Your task to perform on an android device: Open internet settings Image 0: 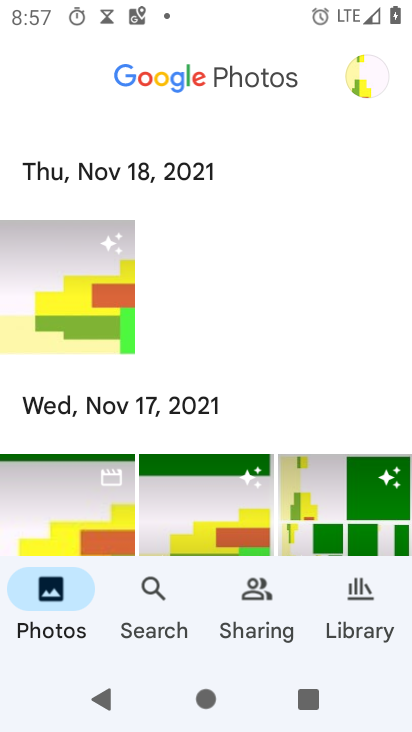
Step 0: press home button
Your task to perform on an android device: Open internet settings Image 1: 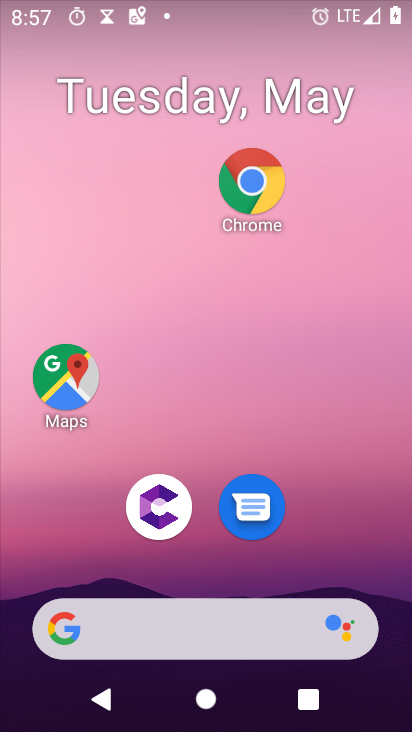
Step 1: drag from (216, 599) to (286, 92)
Your task to perform on an android device: Open internet settings Image 2: 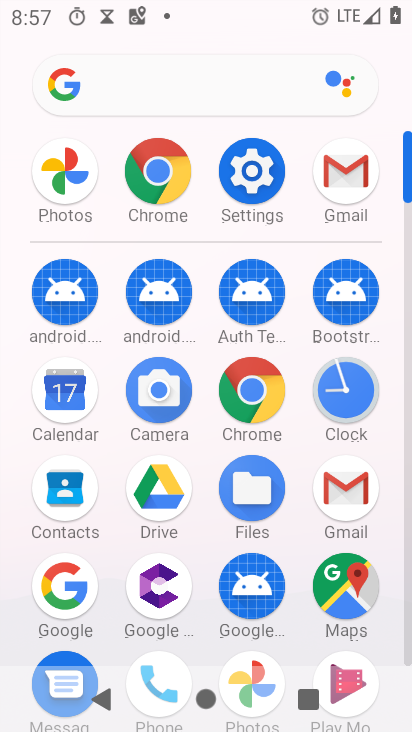
Step 2: click (245, 175)
Your task to perform on an android device: Open internet settings Image 3: 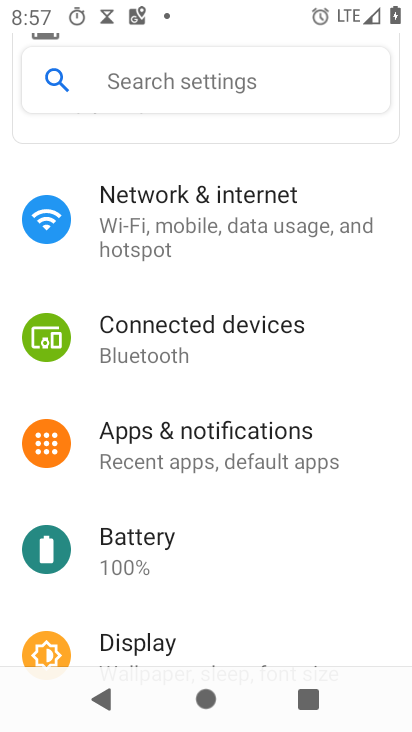
Step 3: click (239, 208)
Your task to perform on an android device: Open internet settings Image 4: 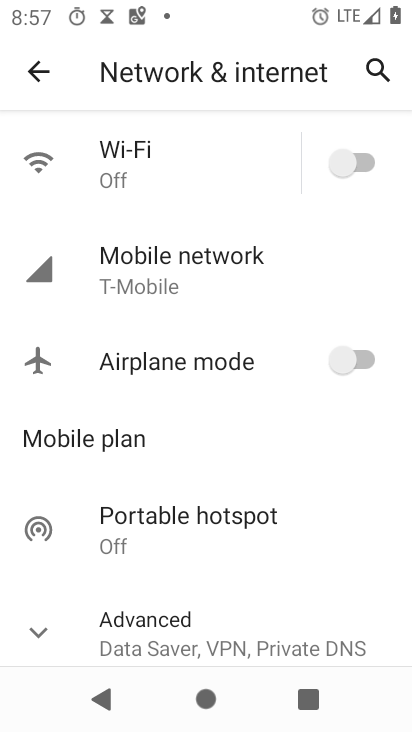
Step 4: click (113, 264)
Your task to perform on an android device: Open internet settings Image 5: 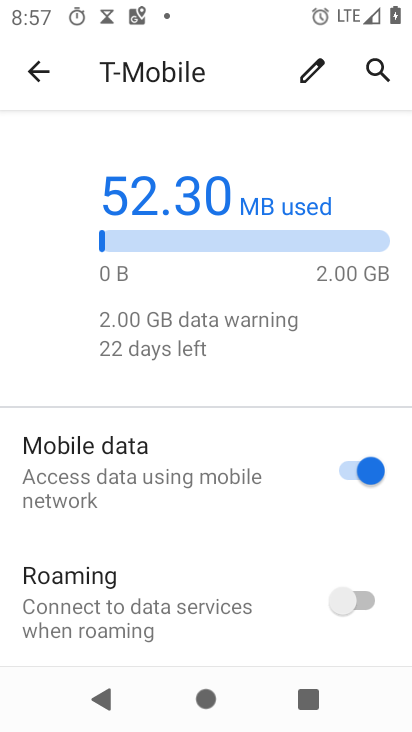
Step 5: task complete